Your task to perform on an android device: open the mobile data screen to see how much data has been used Image 0: 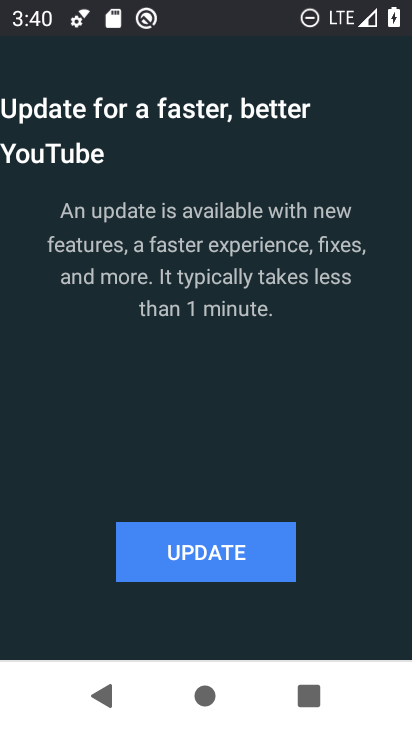
Step 0: press home button
Your task to perform on an android device: open the mobile data screen to see how much data has been used Image 1: 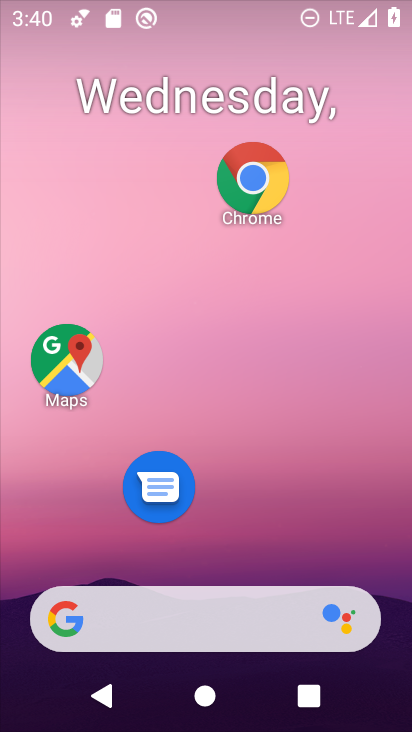
Step 1: drag from (287, 546) to (235, 153)
Your task to perform on an android device: open the mobile data screen to see how much data has been used Image 2: 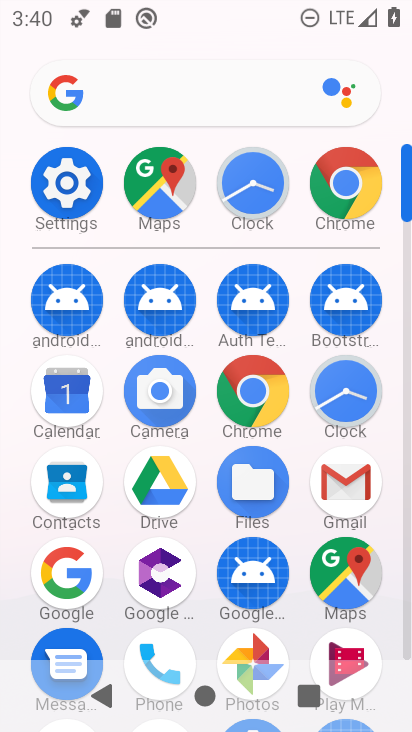
Step 2: click (55, 178)
Your task to perform on an android device: open the mobile data screen to see how much data has been used Image 3: 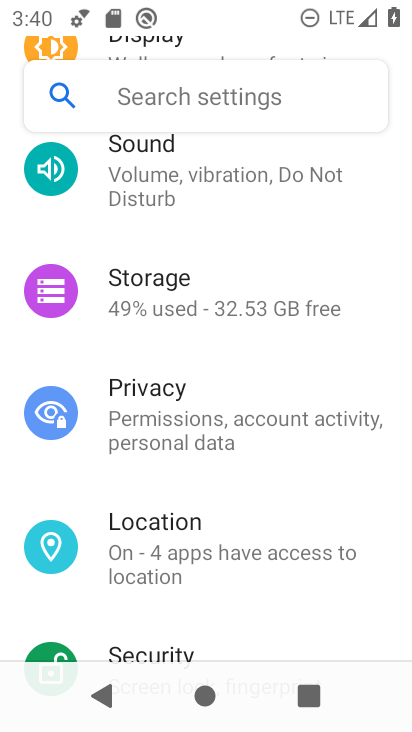
Step 3: drag from (188, 209) to (212, 607)
Your task to perform on an android device: open the mobile data screen to see how much data has been used Image 4: 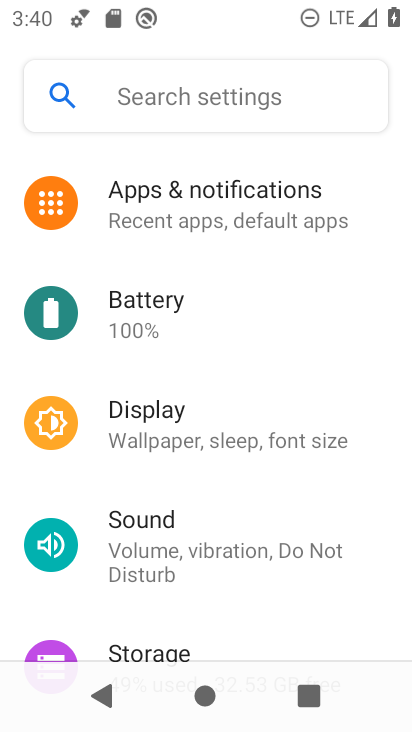
Step 4: drag from (204, 199) to (194, 544)
Your task to perform on an android device: open the mobile data screen to see how much data has been used Image 5: 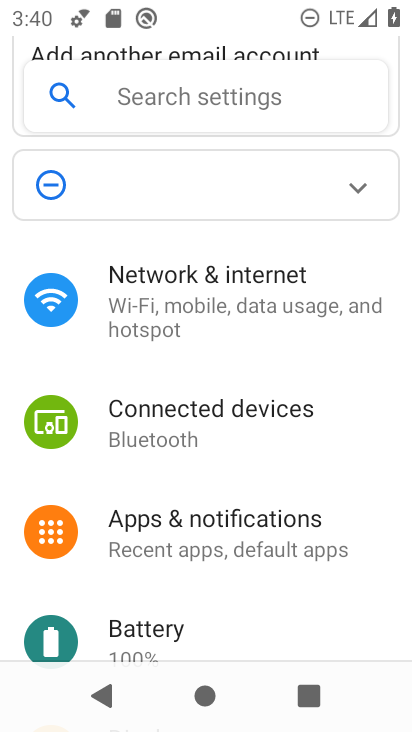
Step 5: click (195, 281)
Your task to perform on an android device: open the mobile data screen to see how much data has been used Image 6: 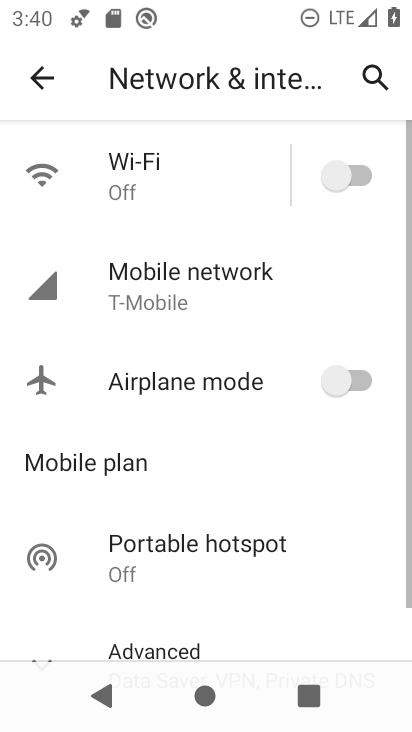
Step 6: click (161, 266)
Your task to perform on an android device: open the mobile data screen to see how much data has been used Image 7: 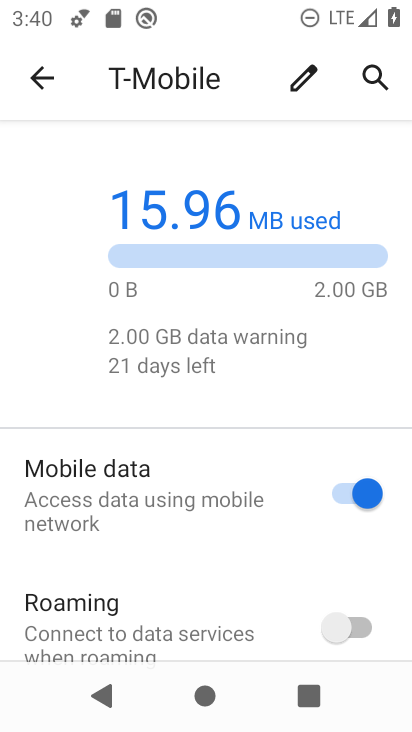
Step 7: task complete